Your task to perform on an android device: move a message to another label in the gmail app Image 0: 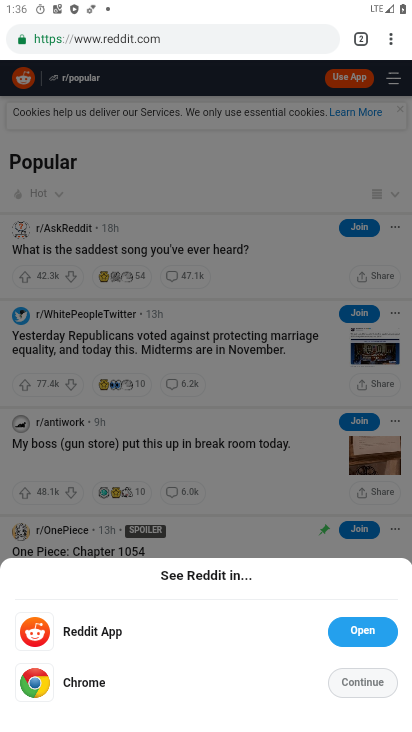
Step 0: drag from (232, 411) to (294, 132)
Your task to perform on an android device: move a message to another label in the gmail app Image 1: 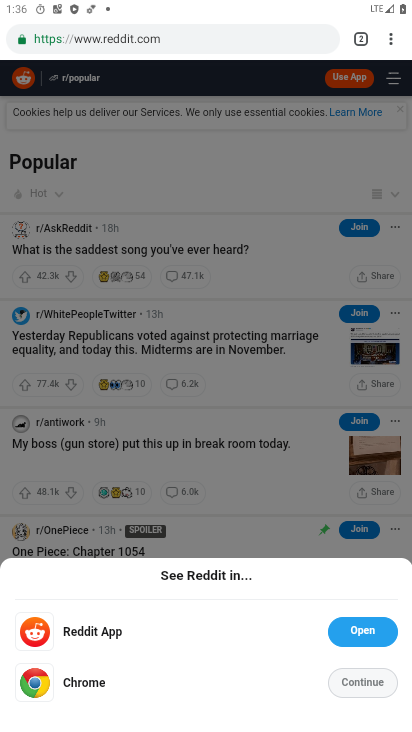
Step 1: press home button
Your task to perform on an android device: move a message to another label in the gmail app Image 2: 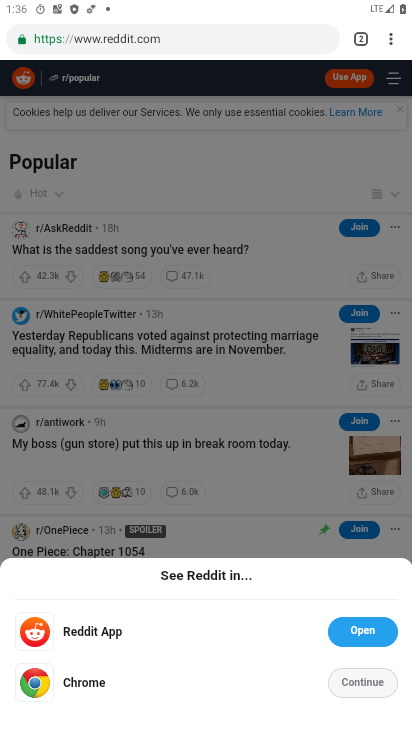
Step 2: press home button
Your task to perform on an android device: move a message to another label in the gmail app Image 3: 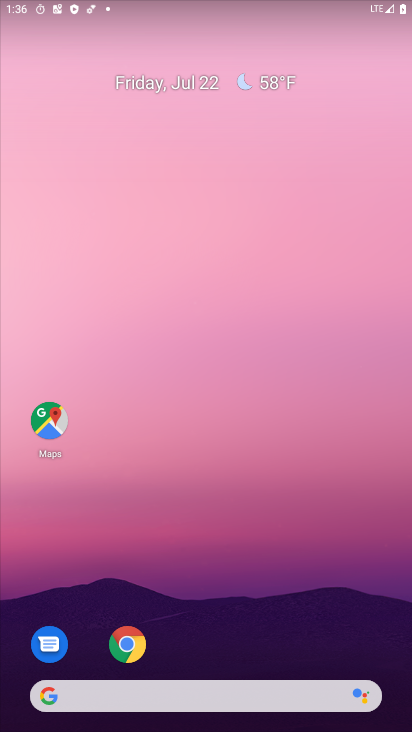
Step 3: drag from (160, 625) to (283, 18)
Your task to perform on an android device: move a message to another label in the gmail app Image 4: 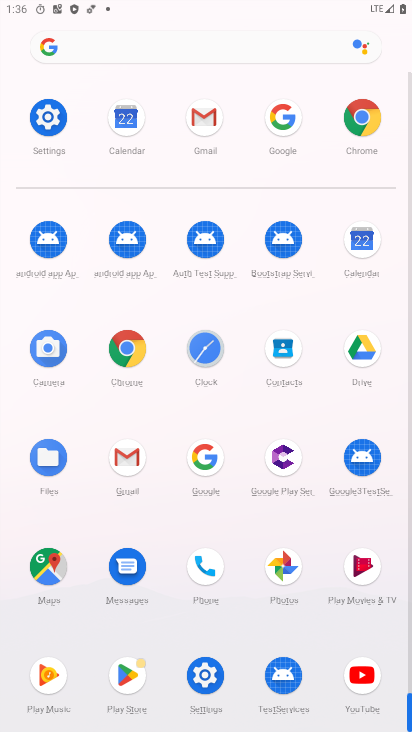
Step 4: click (123, 454)
Your task to perform on an android device: move a message to another label in the gmail app Image 5: 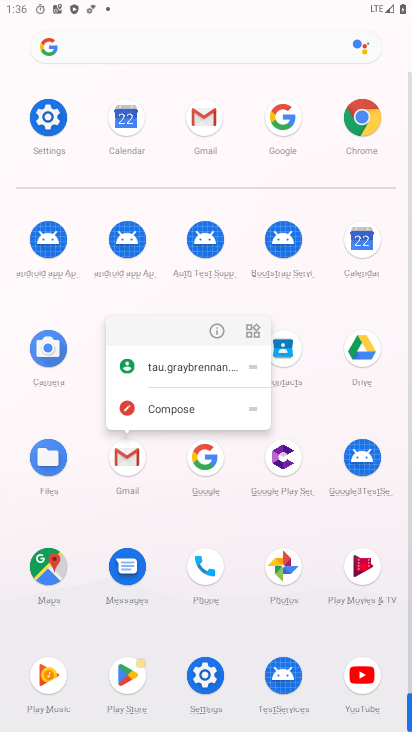
Step 5: click (220, 330)
Your task to perform on an android device: move a message to another label in the gmail app Image 6: 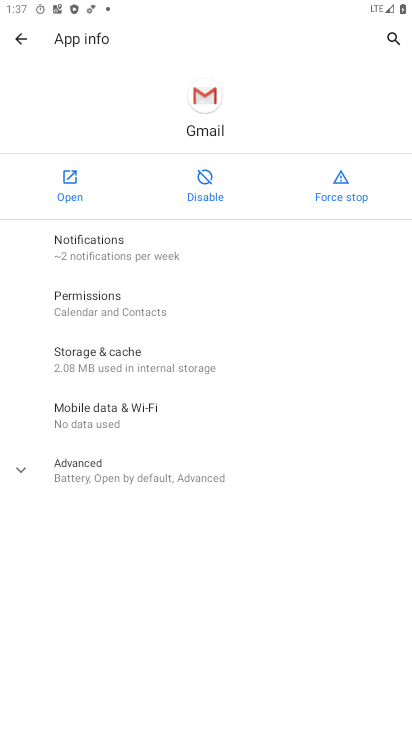
Step 6: click (66, 178)
Your task to perform on an android device: move a message to another label in the gmail app Image 7: 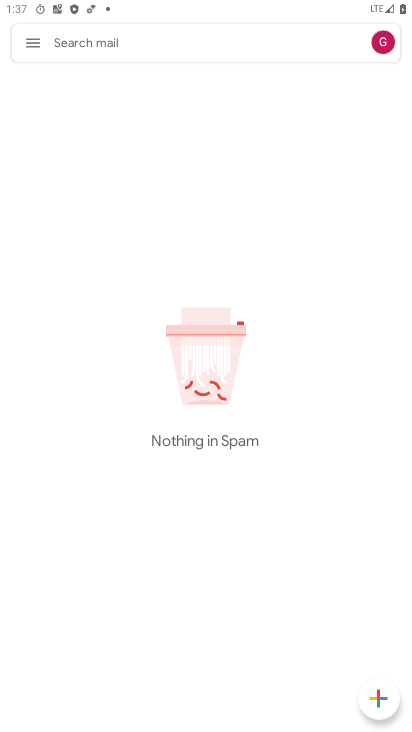
Step 7: drag from (237, 429) to (228, 246)
Your task to perform on an android device: move a message to another label in the gmail app Image 8: 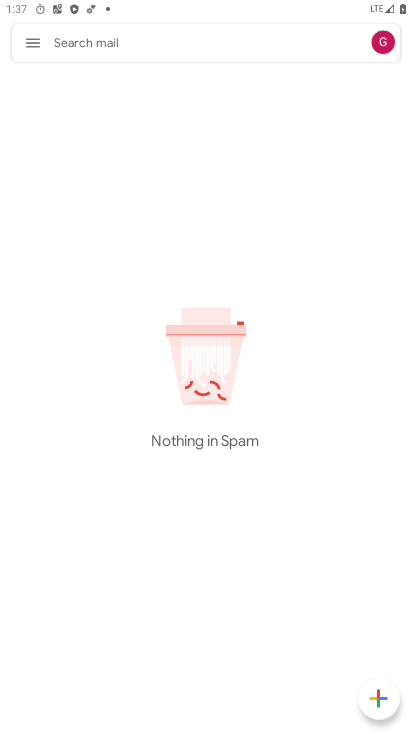
Step 8: click (35, 42)
Your task to perform on an android device: move a message to another label in the gmail app Image 9: 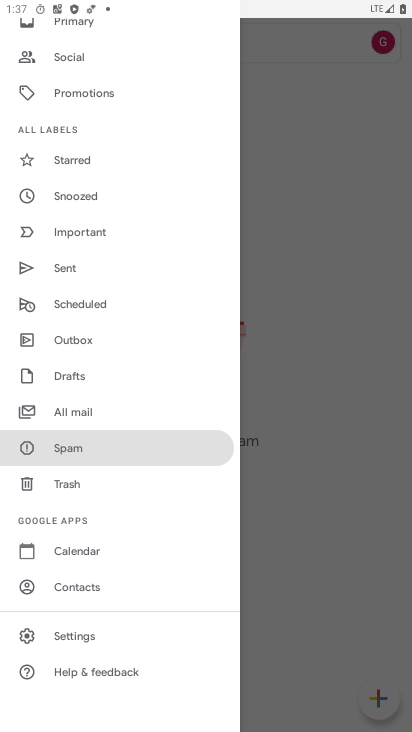
Step 9: drag from (112, 628) to (111, 203)
Your task to perform on an android device: move a message to another label in the gmail app Image 10: 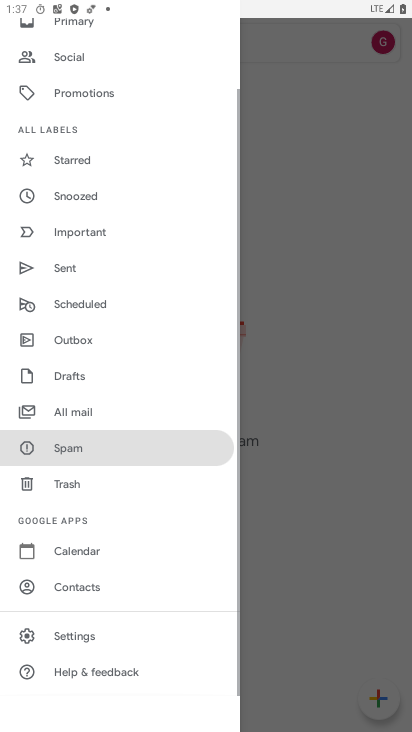
Step 10: click (354, 162)
Your task to perform on an android device: move a message to another label in the gmail app Image 11: 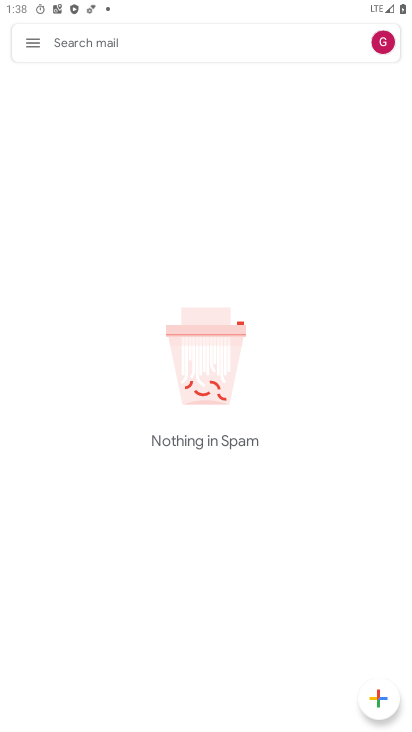
Step 11: task complete